Your task to perform on an android device: turn off notifications settings in the gmail app Image 0: 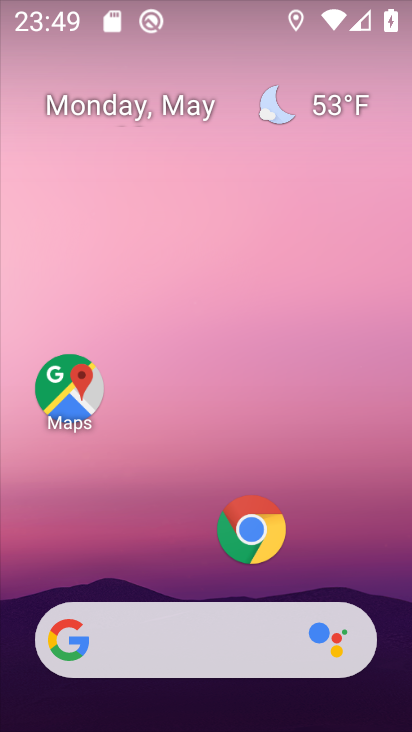
Step 0: drag from (320, 567) to (299, 147)
Your task to perform on an android device: turn off notifications settings in the gmail app Image 1: 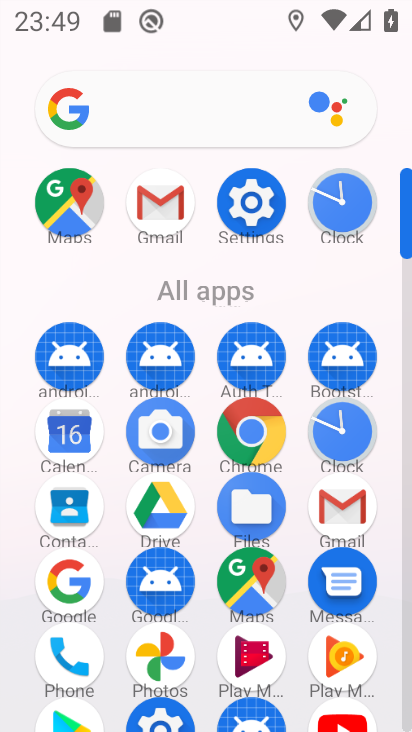
Step 1: click (163, 219)
Your task to perform on an android device: turn off notifications settings in the gmail app Image 2: 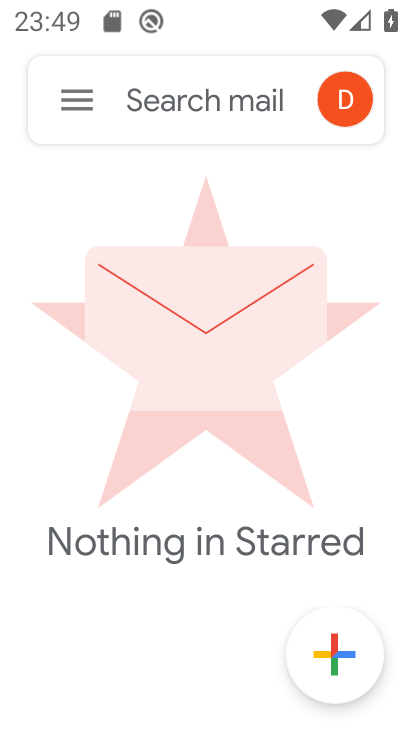
Step 2: click (74, 111)
Your task to perform on an android device: turn off notifications settings in the gmail app Image 3: 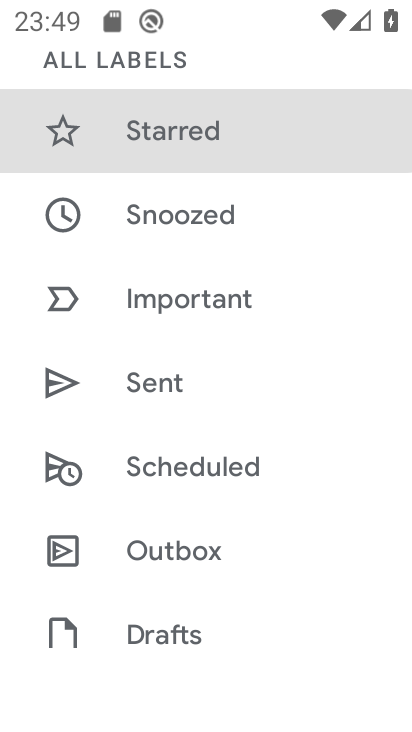
Step 3: drag from (268, 546) to (224, 220)
Your task to perform on an android device: turn off notifications settings in the gmail app Image 4: 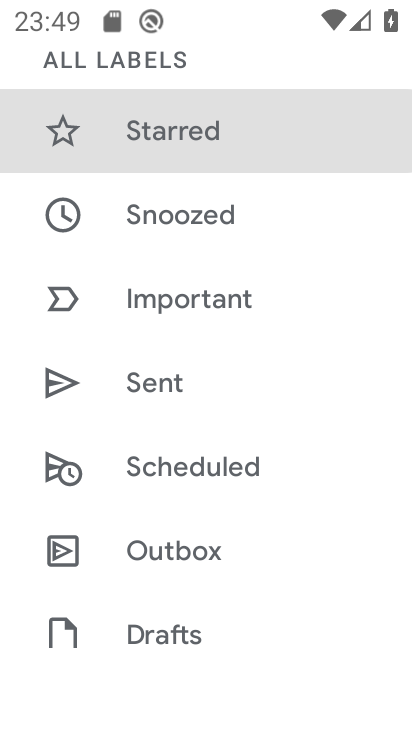
Step 4: drag from (228, 602) to (261, 298)
Your task to perform on an android device: turn off notifications settings in the gmail app Image 5: 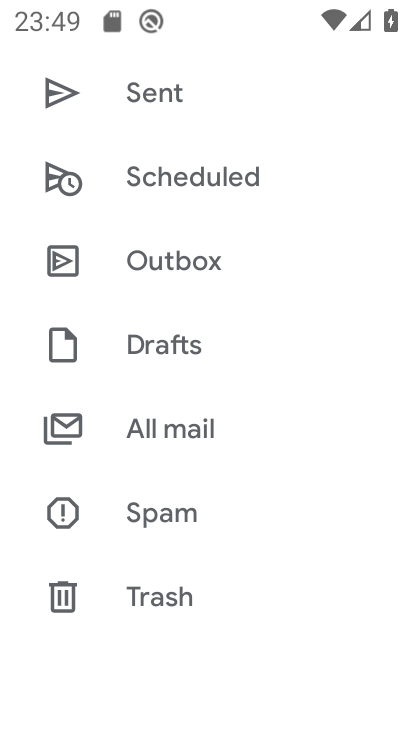
Step 5: drag from (236, 590) to (271, 418)
Your task to perform on an android device: turn off notifications settings in the gmail app Image 6: 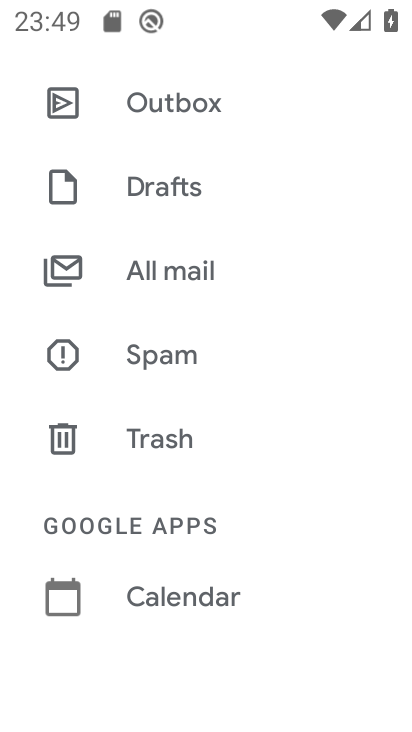
Step 6: drag from (281, 562) to (288, 300)
Your task to perform on an android device: turn off notifications settings in the gmail app Image 7: 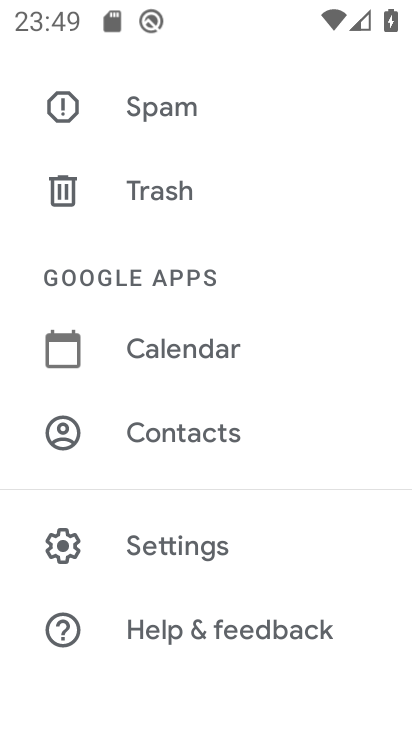
Step 7: click (191, 551)
Your task to perform on an android device: turn off notifications settings in the gmail app Image 8: 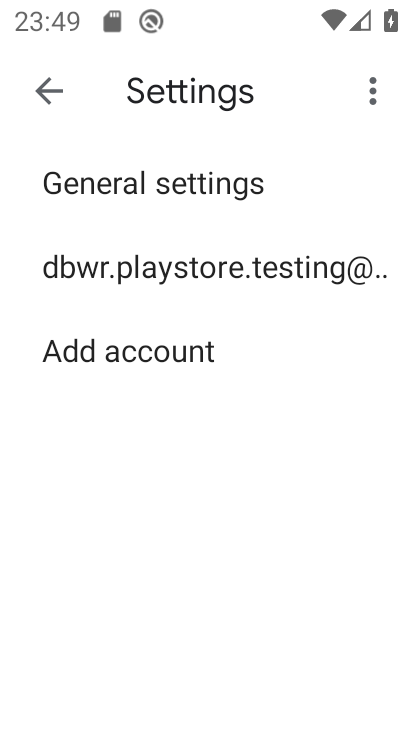
Step 8: click (199, 172)
Your task to perform on an android device: turn off notifications settings in the gmail app Image 9: 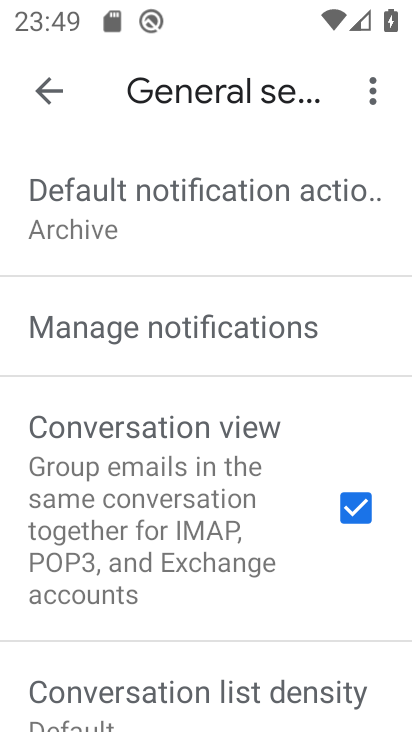
Step 9: click (213, 332)
Your task to perform on an android device: turn off notifications settings in the gmail app Image 10: 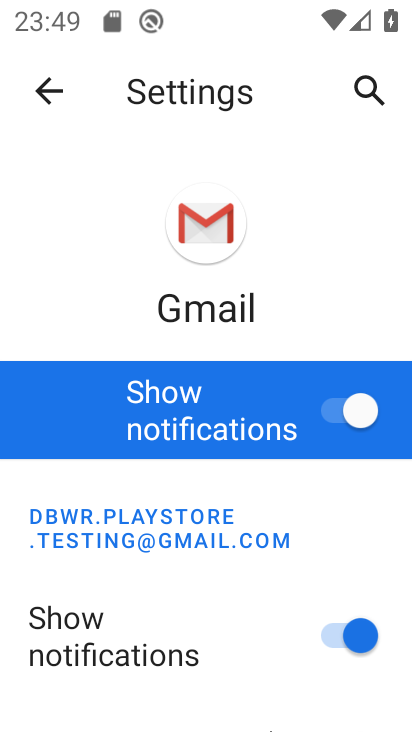
Step 10: click (336, 409)
Your task to perform on an android device: turn off notifications settings in the gmail app Image 11: 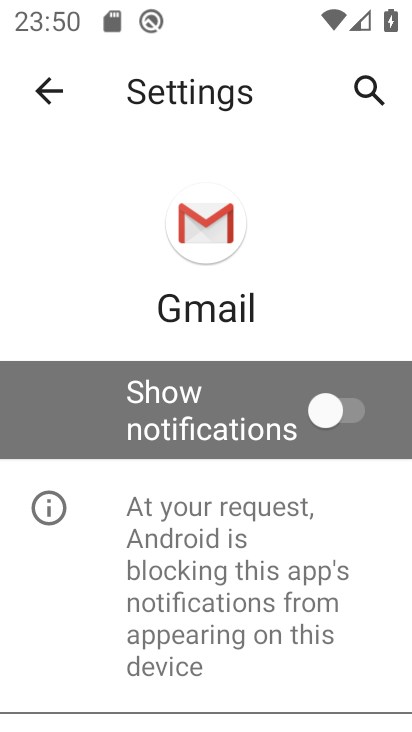
Step 11: task complete